Your task to perform on an android device: visit the assistant section in the google photos Image 0: 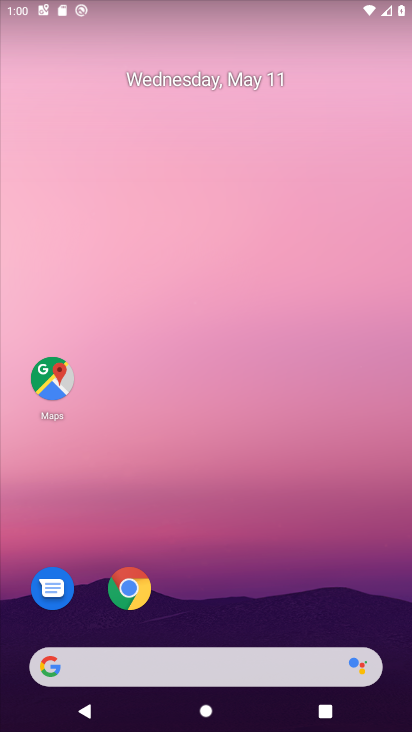
Step 0: drag from (161, 618) to (212, 258)
Your task to perform on an android device: visit the assistant section in the google photos Image 1: 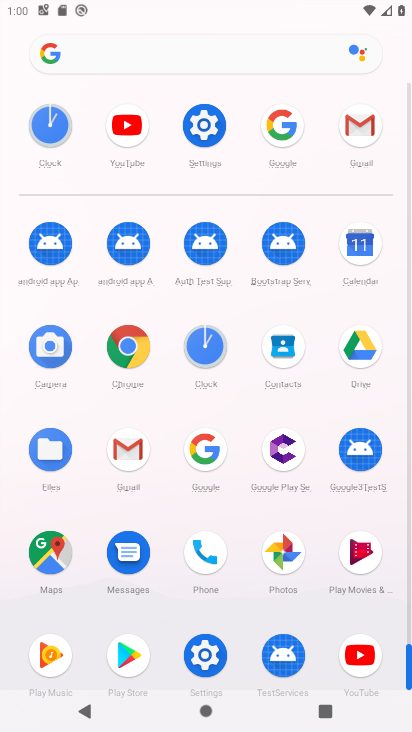
Step 1: click (282, 545)
Your task to perform on an android device: visit the assistant section in the google photos Image 2: 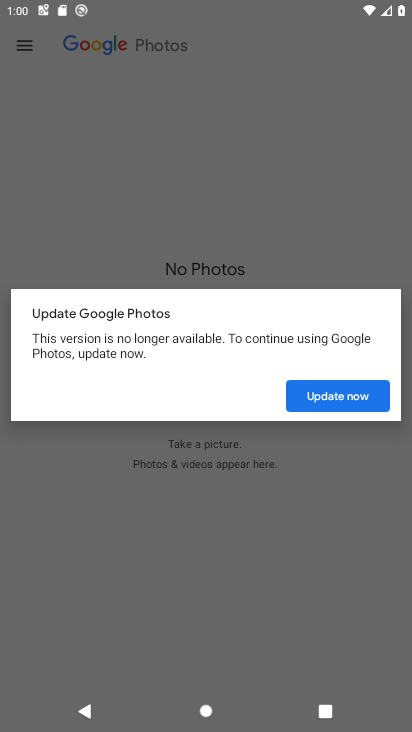
Step 2: press home button
Your task to perform on an android device: visit the assistant section in the google photos Image 3: 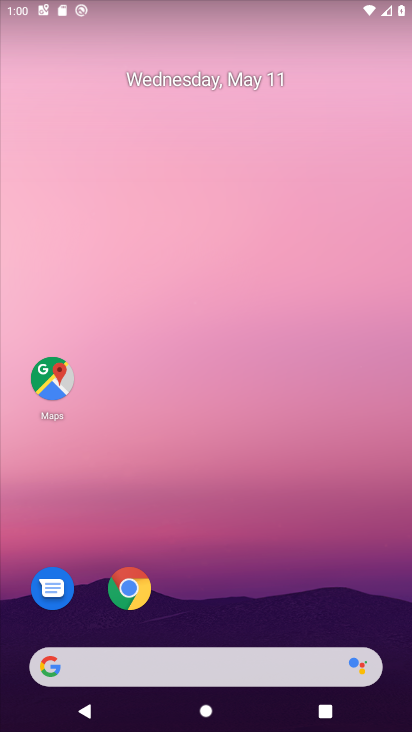
Step 3: drag from (181, 639) to (218, 379)
Your task to perform on an android device: visit the assistant section in the google photos Image 4: 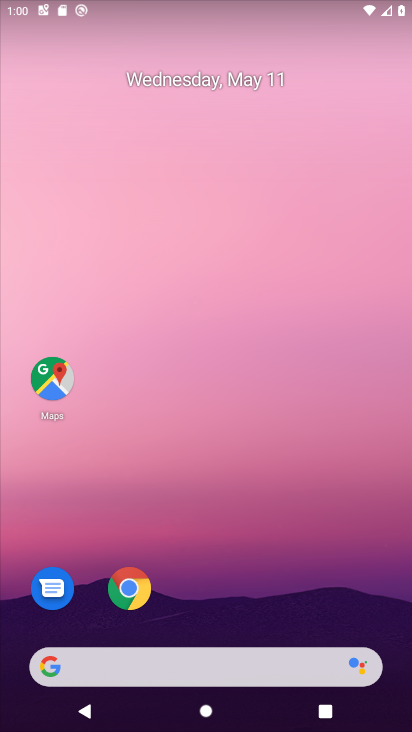
Step 4: drag from (238, 631) to (277, 254)
Your task to perform on an android device: visit the assistant section in the google photos Image 5: 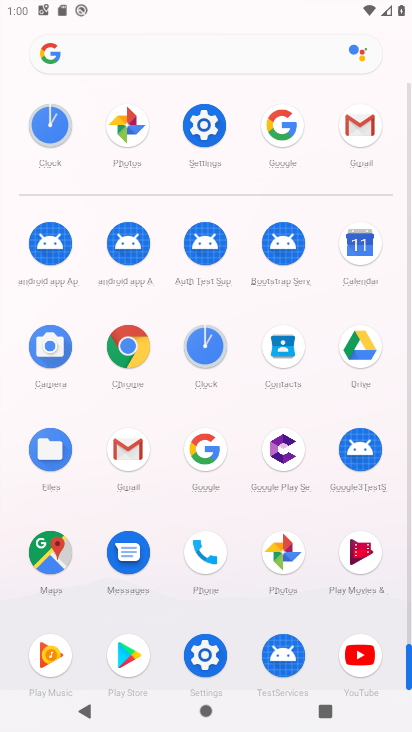
Step 5: click (288, 541)
Your task to perform on an android device: visit the assistant section in the google photos Image 6: 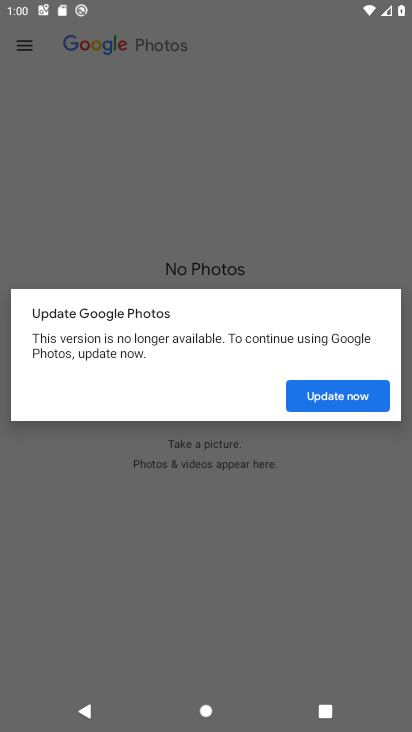
Step 6: click (315, 392)
Your task to perform on an android device: visit the assistant section in the google photos Image 7: 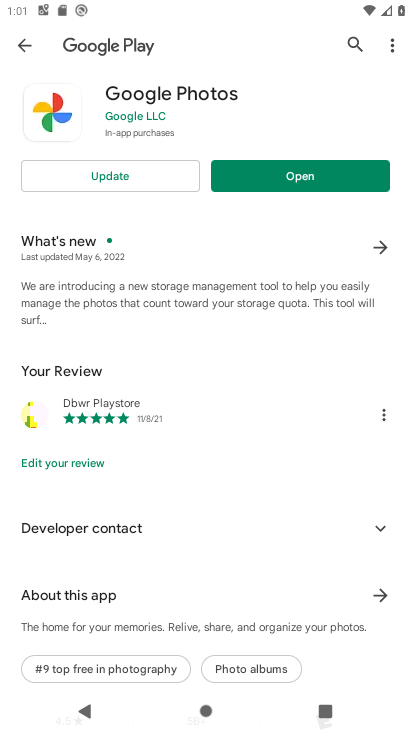
Step 7: click (129, 170)
Your task to perform on an android device: visit the assistant section in the google photos Image 8: 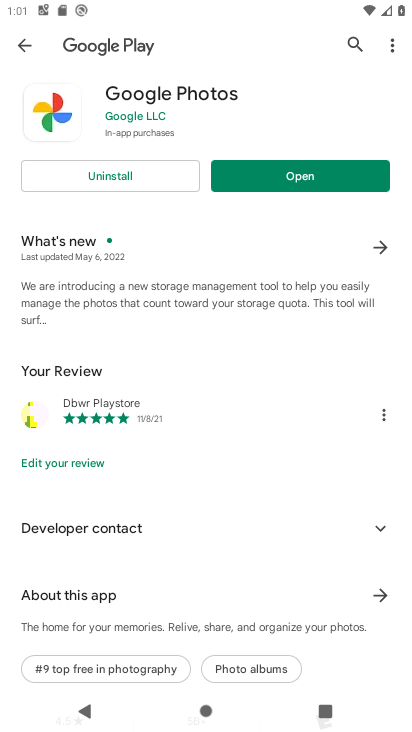
Step 8: click (292, 182)
Your task to perform on an android device: visit the assistant section in the google photos Image 9: 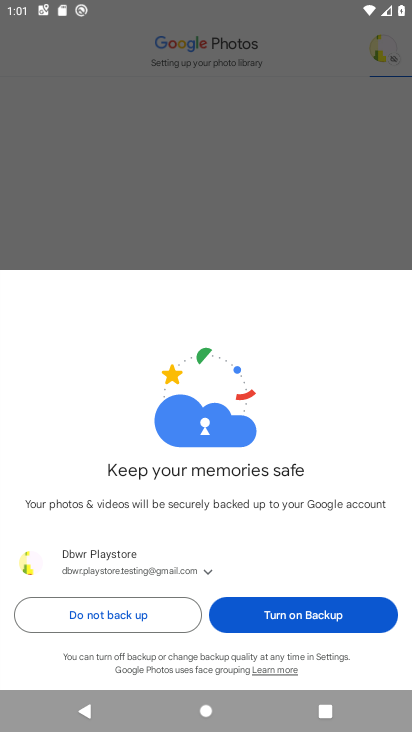
Step 9: click (287, 613)
Your task to perform on an android device: visit the assistant section in the google photos Image 10: 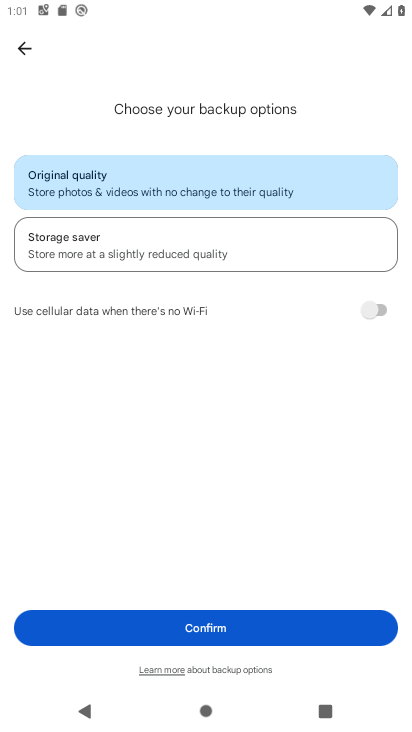
Step 10: click (182, 629)
Your task to perform on an android device: visit the assistant section in the google photos Image 11: 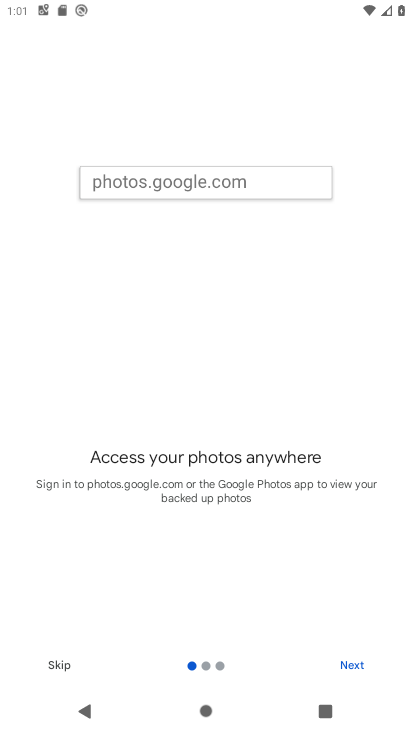
Step 11: click (331, 661)
Your task to perform on an android device: visit the assistant section in the google photos Image 12: 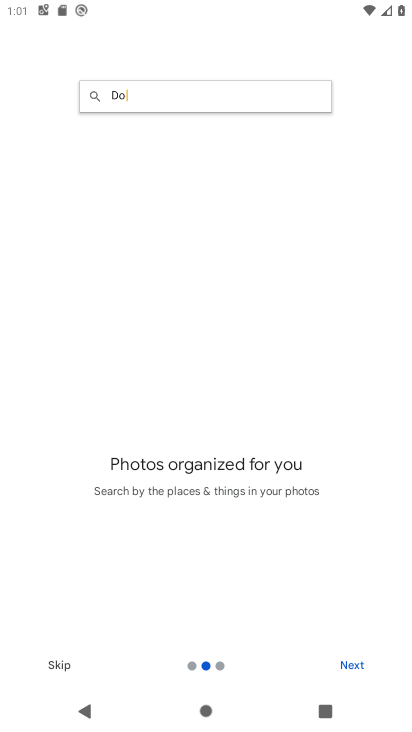
Step 12: click (331, 661)
Your task to perform on an android device: visit the assistant section in the google photos Image 13: 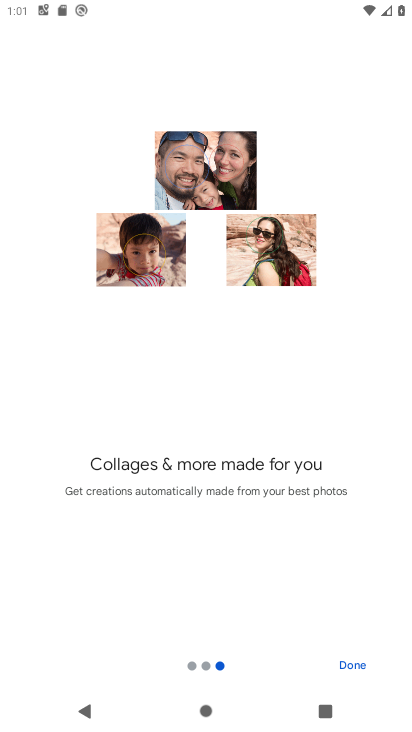
Step 13: click (339, 666)
Your task to perform on an android device: visit the assistant section in the google photos Image 14: 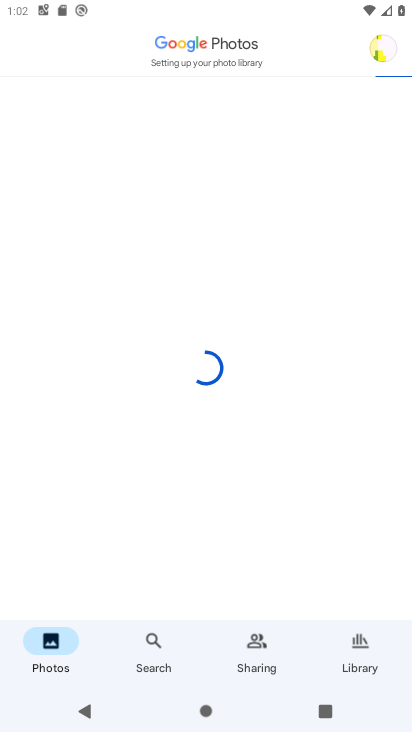
Step 14: drag from (197, 607) to (206, 245)
Your task to perform on an android device: visit the assistant section in the google photos Image 15: 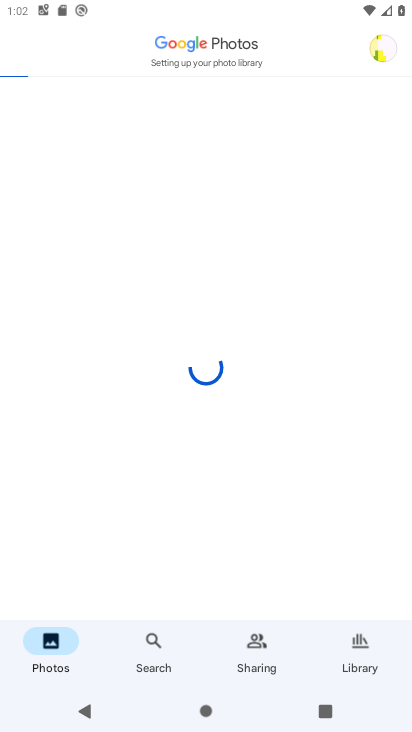
Step 15: press home button
Your task to perform on an android device: visit the assistant section in the google photos Image 16: 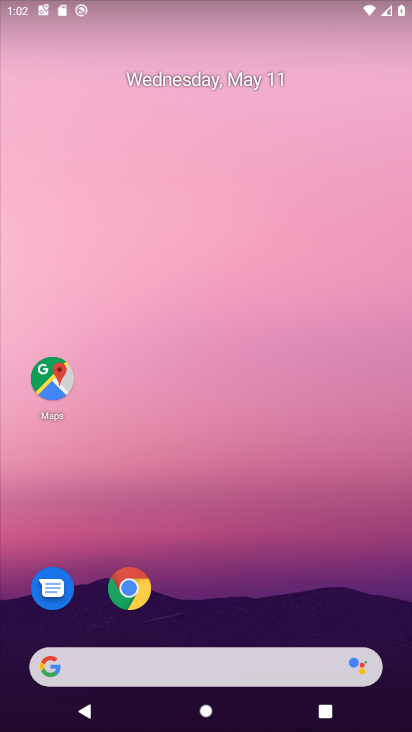
Step 16: drag from (165, 628) to (165, 405)
Your task to perform on an android device: visit the assistant section in the google photos Image 17: 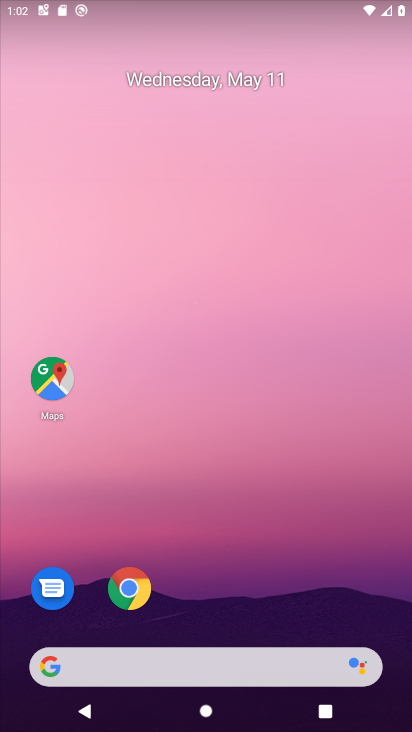
Step 17: drag from (193, 622) to (238, 175)
Your task to perform on an android device: visit the assistant section in the google photos Image 18: 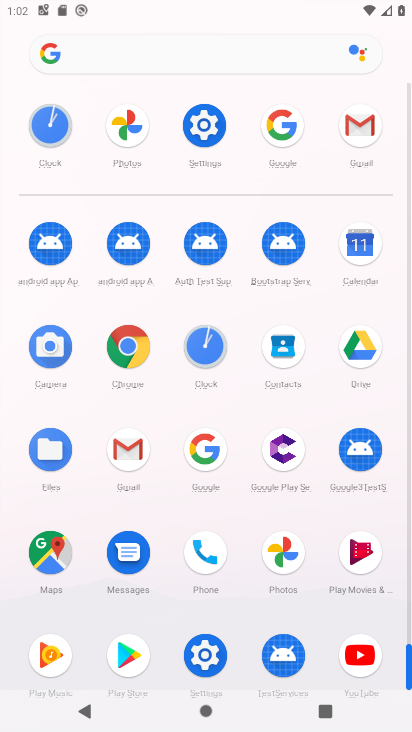
Step 18: click (110, 134)
Your task to perform on an android device: visit the assistant section in the google photos Image 19: 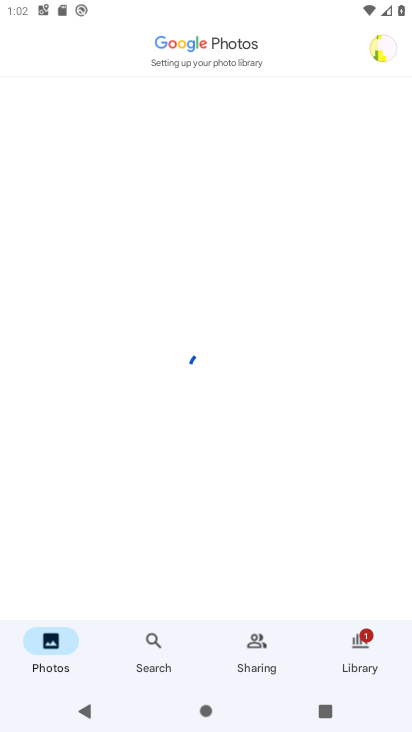
Step 19: task complete